Your task to perform on an android device: check data usage Image 0: 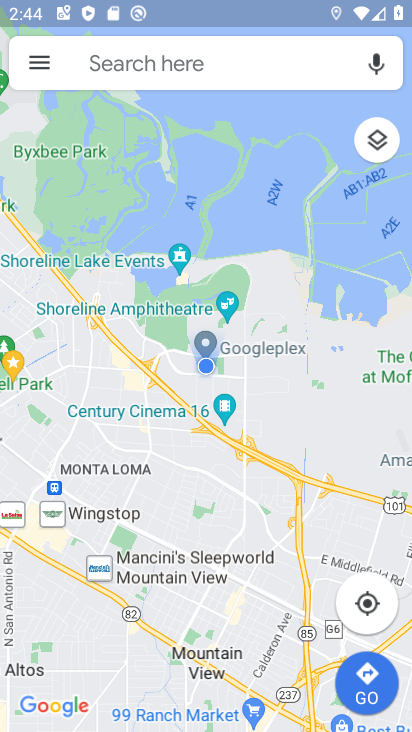
Step 0: press back button
Your task to perform on an android device: check data usage Image 1: 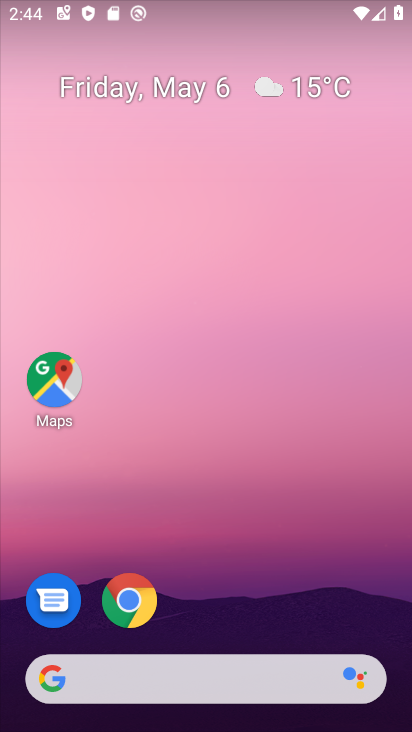
Step 1: drag from (303, 528) to (251, 0)
Your task to perform on an android device: check data usage Image 2: 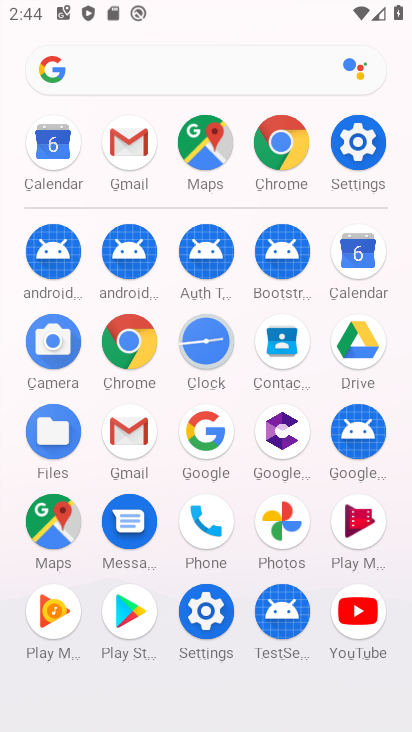
Step 2: click (206, 607)
Your task to perform on an android device: check data usage Image 3: 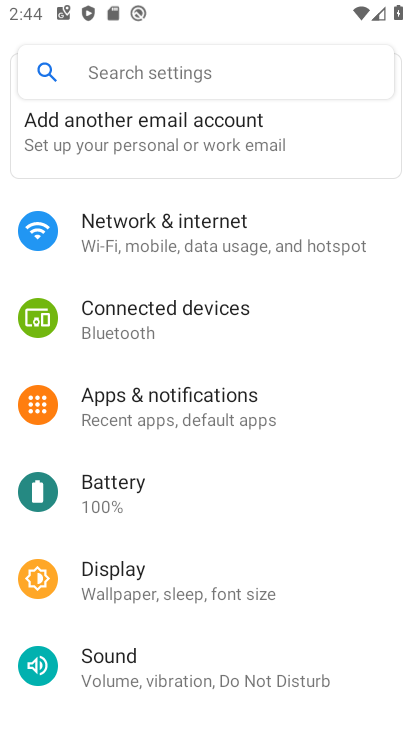
Step 3: click (250, 232)
Your task to perform on an android device: check data usage Image 4: 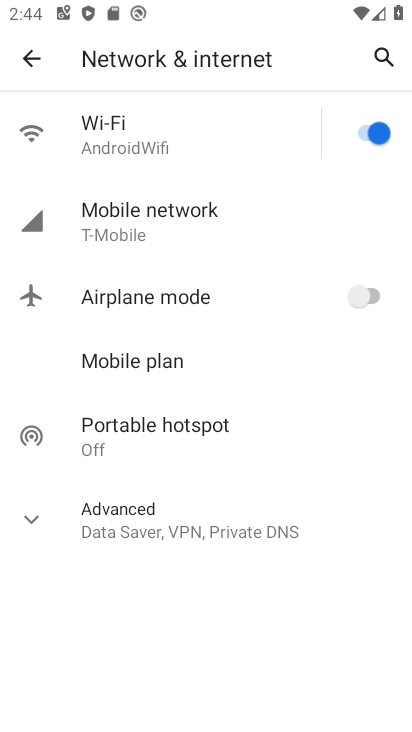
Step 4: click (203, 221)
Your task to perform on an android device: check data usage Image 5: 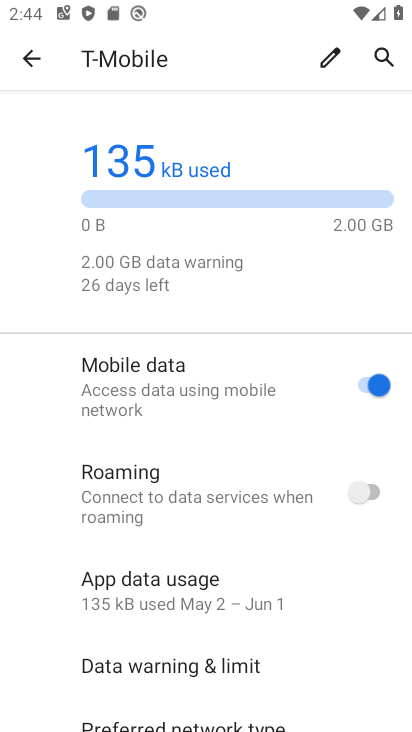
Step 5: task complete